Your task to perform on an android device: Open the map Image 0: 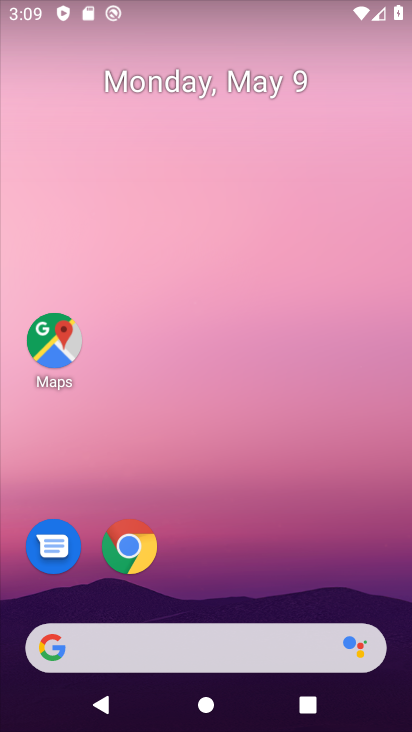
Step 0: drag from (355, 547) to (287, 147)
Your task to perform on an android device: Open the map Image 1: 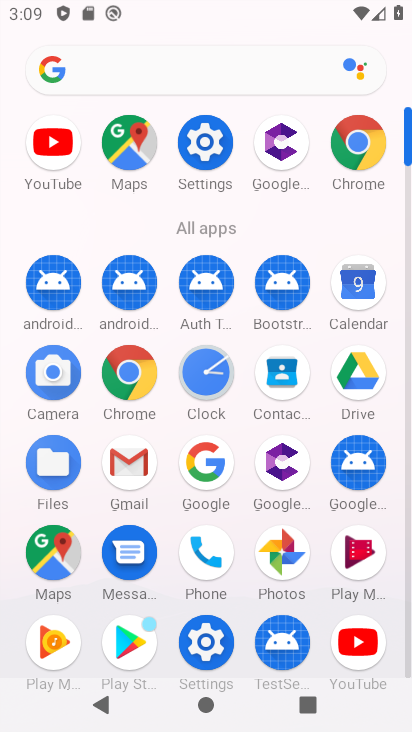
Step 1: click (120, 149)
Your task to perform on an android device: Open the map Image 2: 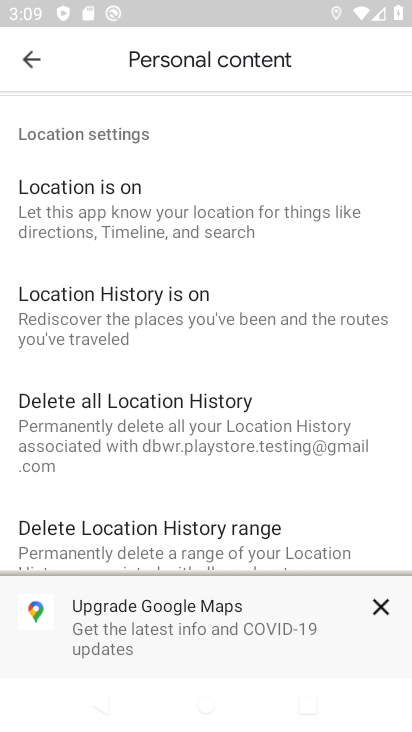
Step 2: click (43, 59)
Your task to perform on an android device: Open the map Image 3: 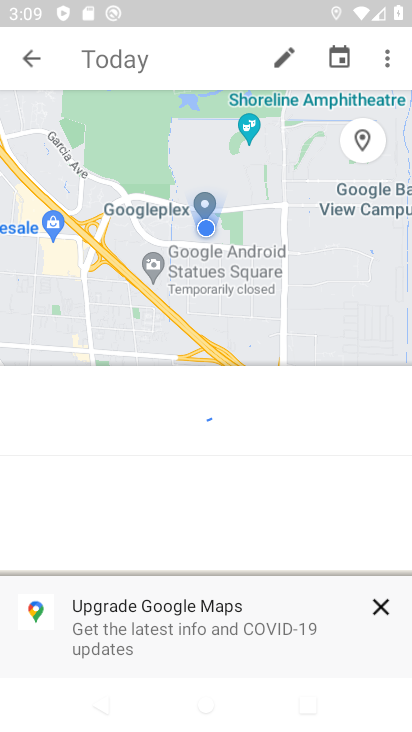
Step 3: click (43, 59)
Your task to perform on an android device: Open the map Image 4: 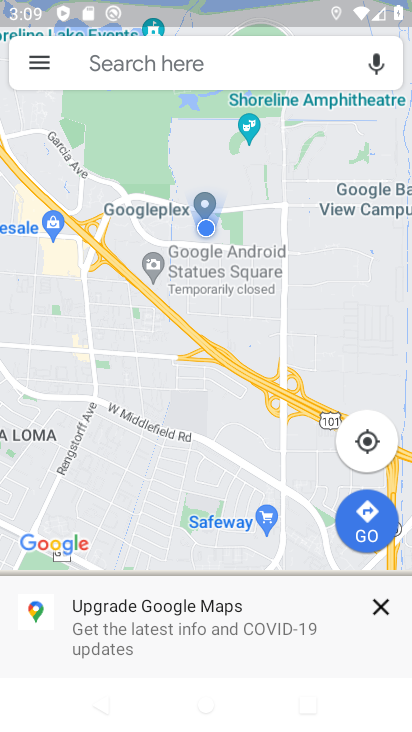
Step 4: task complete